Your task to perform on an android device: Open internet settings Image 0: 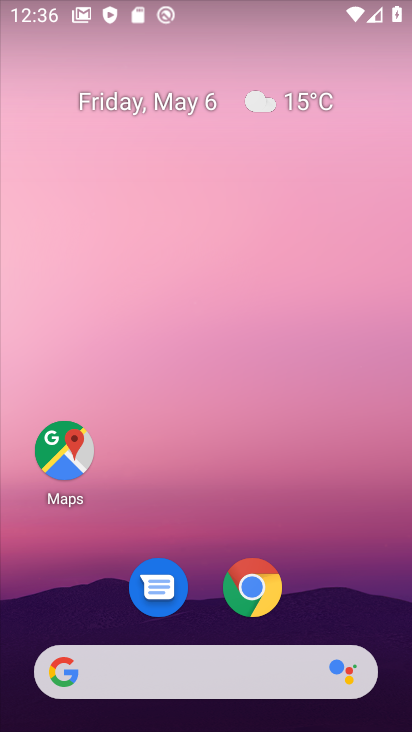
Step 0: drag from (330, 573) to (304, 219)
Your task to perform on an android device: Open internet settings Image 1: 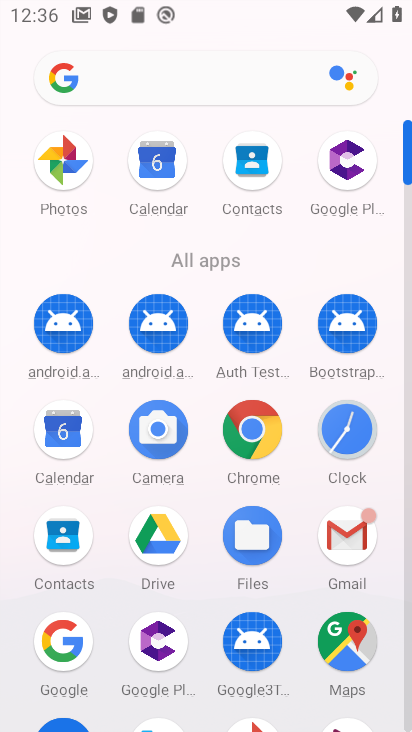
Step 1: drag from (214, 627) to (191, 237)
Your task to perform on an android device: Open internet settings Image 2: 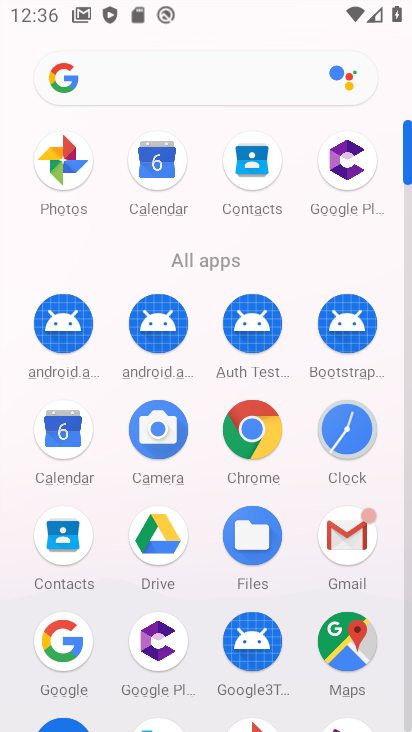
Step 2: drag from (189, 531) to (146, 198)
Your task to perform on an android device: Open internet settings Image 3: 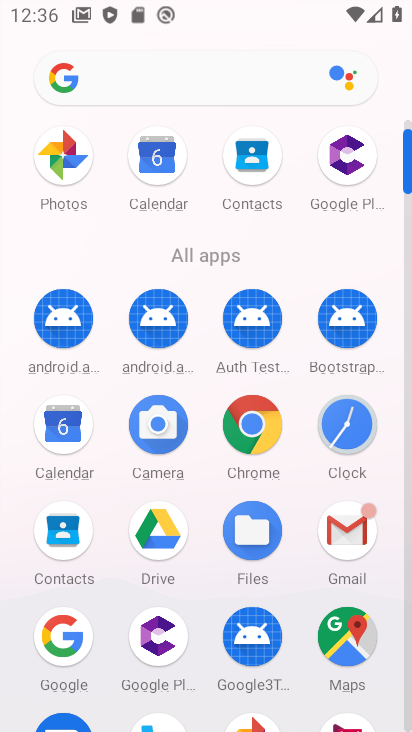
Step 3: drag from (282, 598) to (262, 171)
Your task to perform on an android device: Open internet settings Image 4: 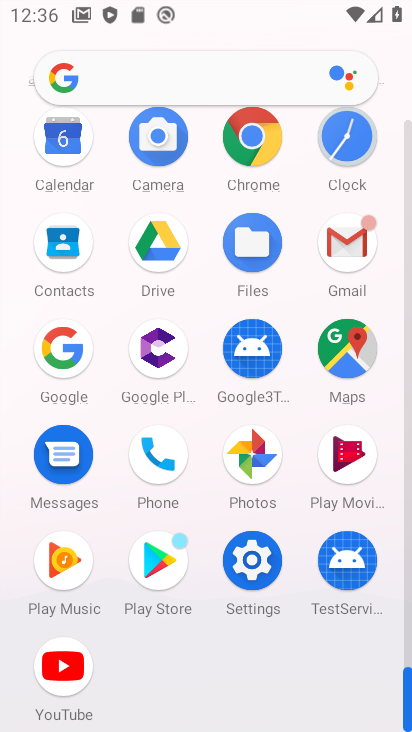
Step 4: click (259, 581)
Your task to perform on an android device: Open internet settings Image 5: 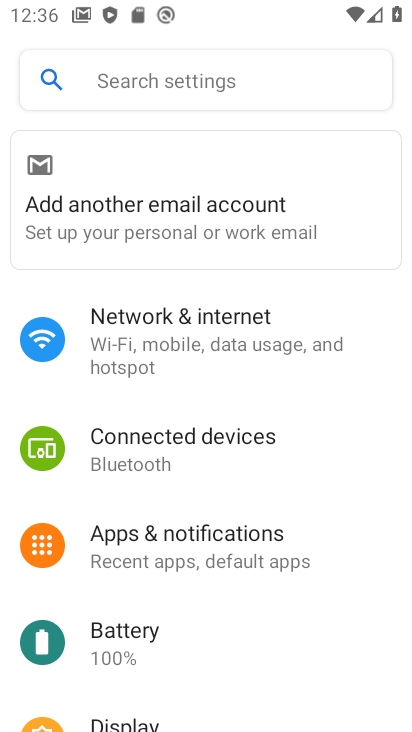
Step 5: click (174, 349)
Your task to perform on an android device: Open internet settings Image 6: 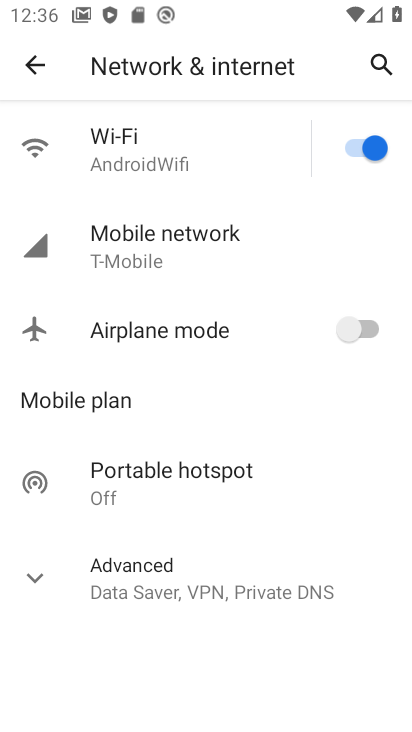
Step 6: task complete